Your task to perform on an android device: add a label to a message in the gmail app Image 0: 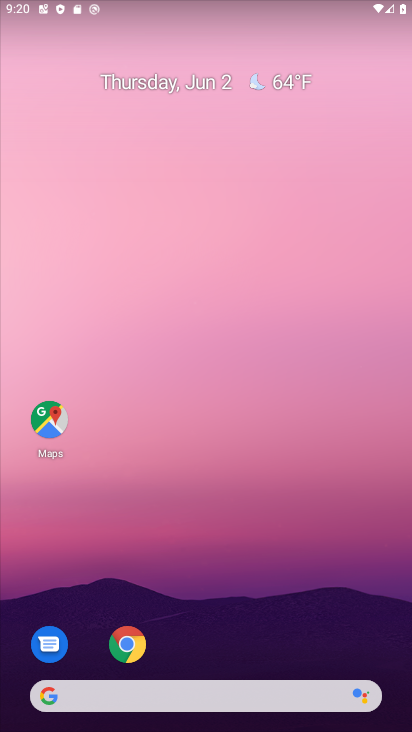
Step 0: drag from (356, 511) to (266, 0)
Your task to perform on an android device: add a label to a message in the gmail app Image 1: 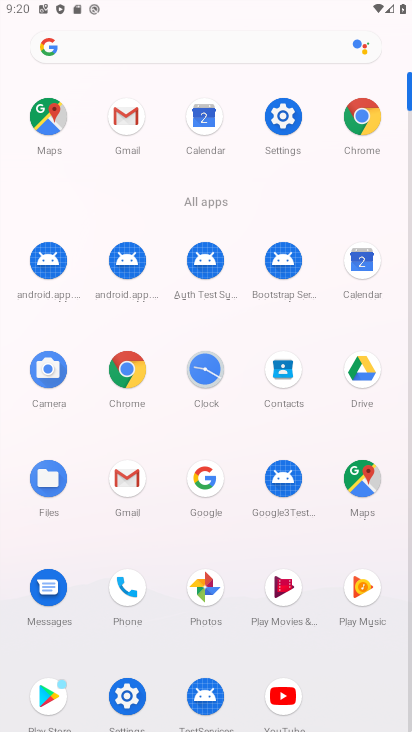
Step 1: click (127, 96)
Your task to perform on an android device: add a label to a message in the gmail app Image 2: 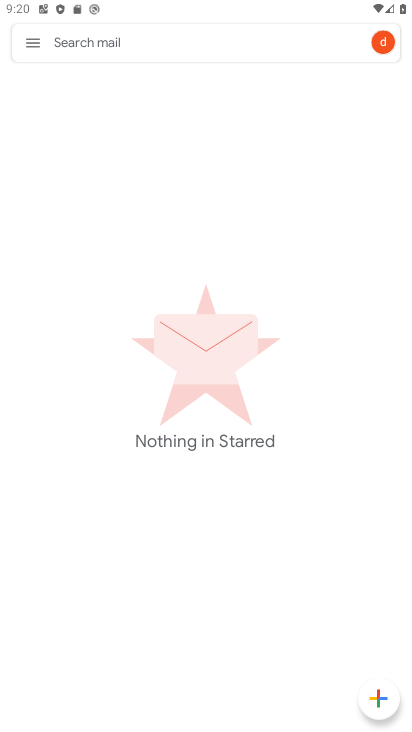
Step 2: task complete